Your task to perform on an android device: Go to battery settings Image 0: 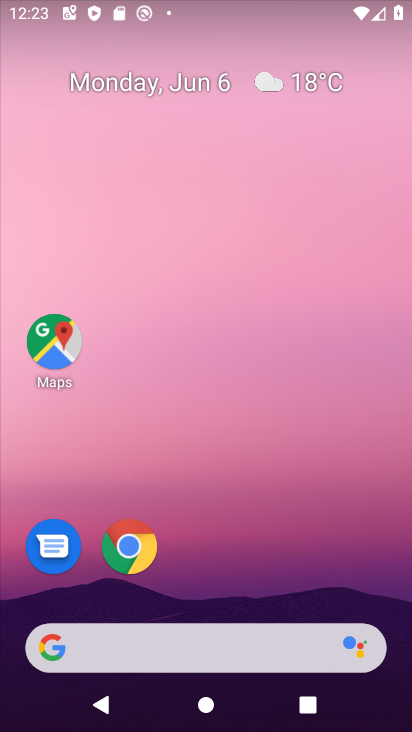
Step 0: drag from (242, 561) to (248, 136)
Your task to perform on an android device: Go to battery settings Image 1: 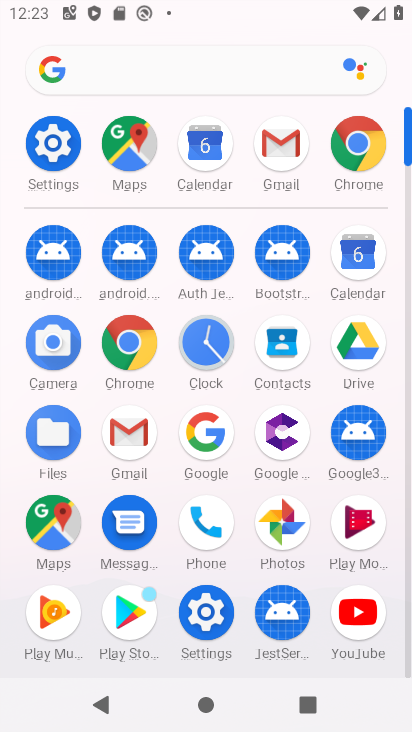
Step 1: click (42, 135)
Your task to perform on an android device: Go to battery settings Image 2: 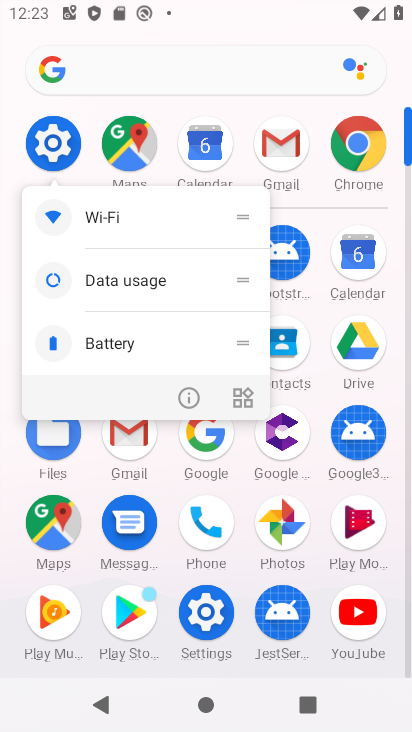
Step 2: click (42, 135)
Your task to perform on an android device: Go to battery settings Image 3: 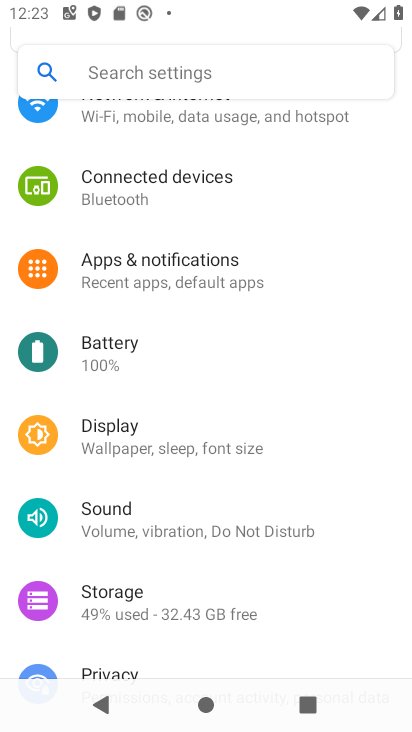
Step 3: click (204, 348)
Your task to perform on an android device: Go to battery settings Image 4: 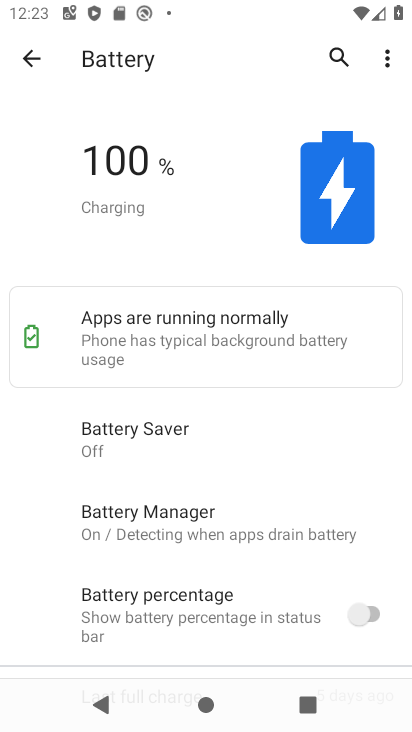
Step 4: task complete